Your task to perform on an android device: Go to sound settings Image 0: 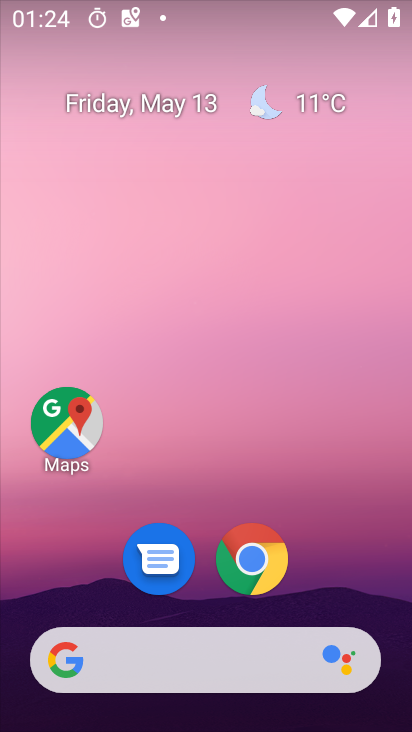
Step 0: drag from (356, 562) to (294, 158)
Your task to perform on an android device: Go to sound settings Image 1: 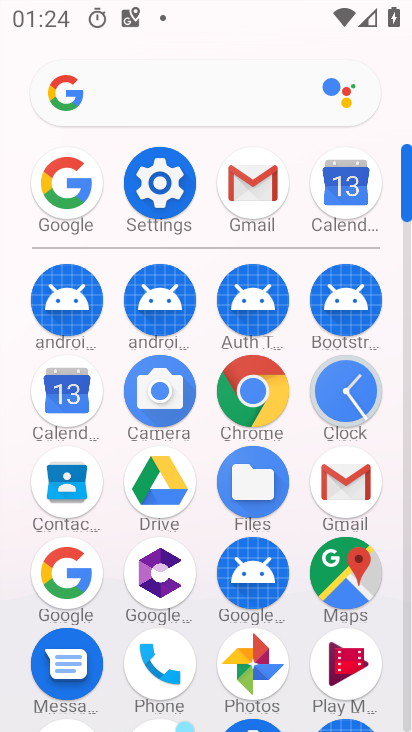
Step 1: click (153, 187)
Your task to perform on an android device: Go to sound settings Image 2: 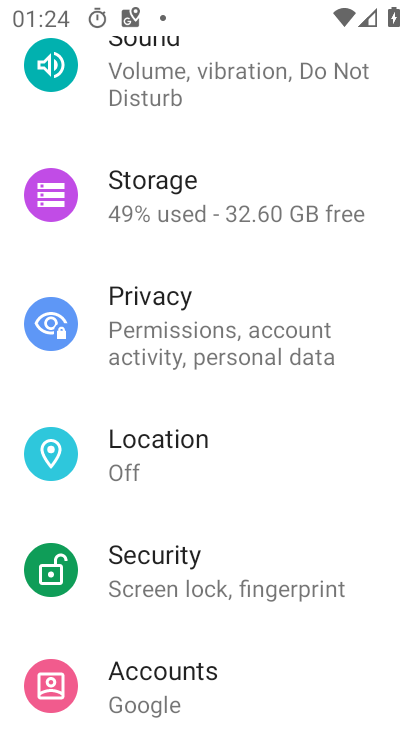
Step 2: click (154, 76)
Your task to perform on an android device: Go to sound settings Image 3: 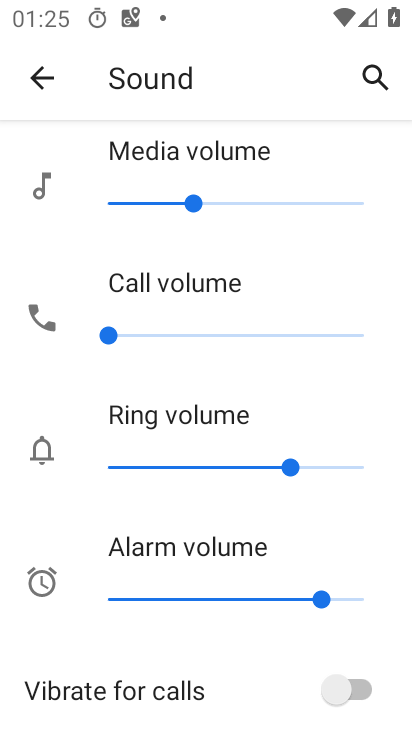
Step 3: task complete